Your task to perform on an android device: turn on notifications settings in the gmail app Image 0: 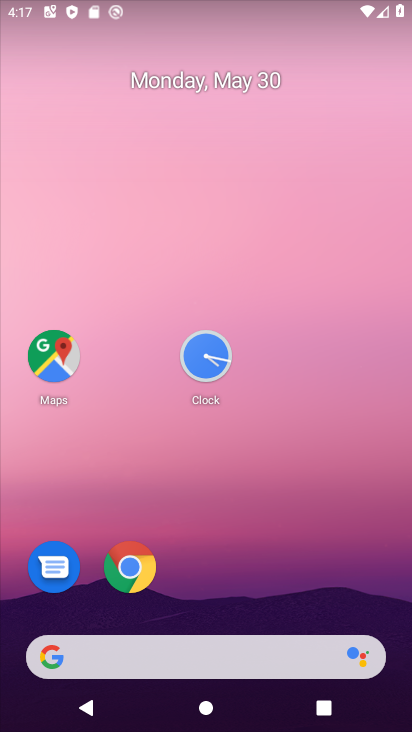
Step 0: drag from (274, 701) to (191, 119)
Your task to perform on an android device: turn on notifications settings in the gmail app Image 1: 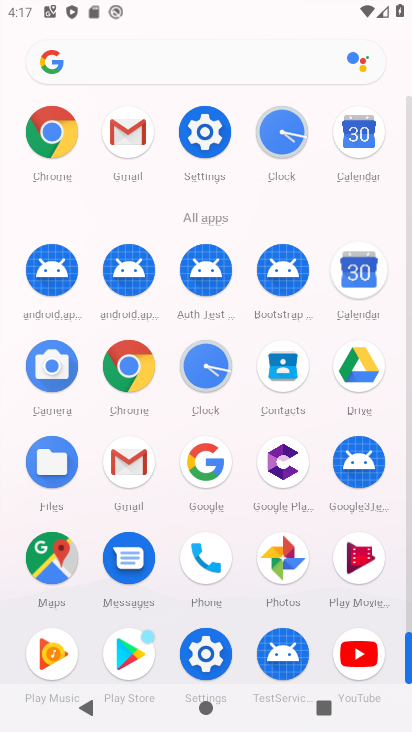
Step 1: click (116, 451)
Your task to perform on an android device: turn on notifications settings in the gmail app Image 2: 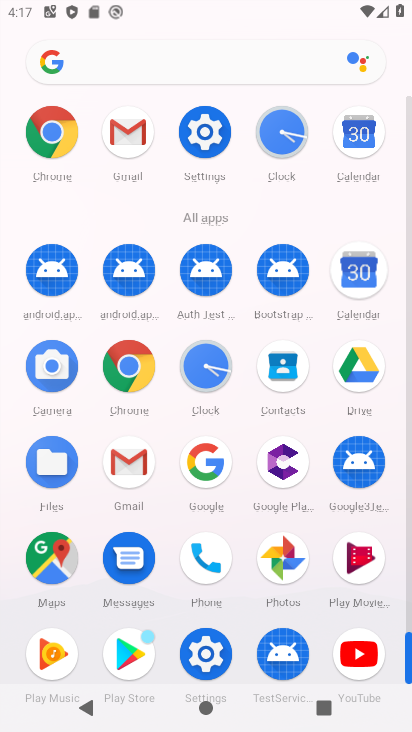
Step 2: click (119, 452)
Your task to perform on an android device: turn on notifications settings in the gmail app Image 3: 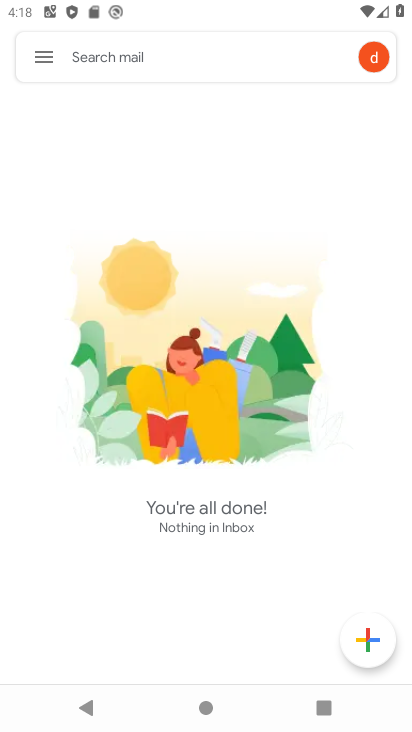
Step 3: click (50, 50)
Your task to perform on an android device: turn on notifications settings in the gmail app Image 4: 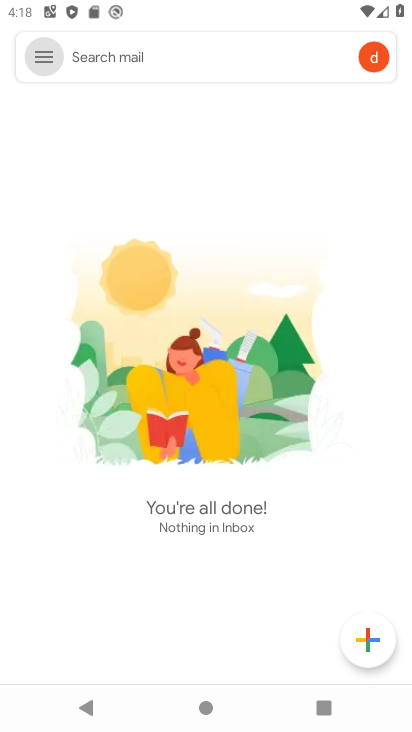
Step 4: click (48, 52)
Your task to perform on an android device: turn on notifications settings in the gmail app Image 5: 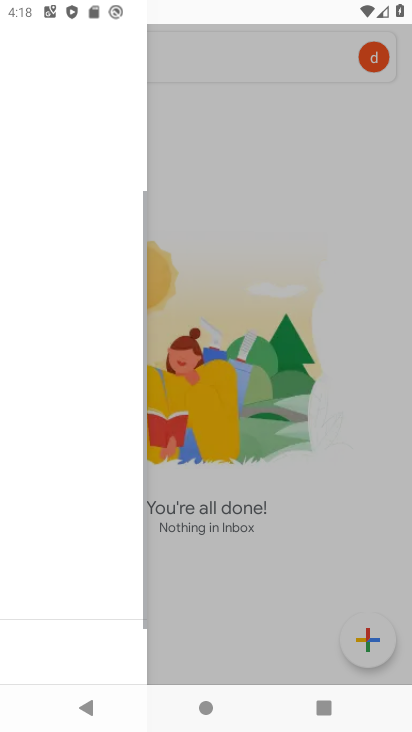
Step 5: click (48, 52)
Your task to perform on an android device: turn on notifications settings in the gmail app Image 6: 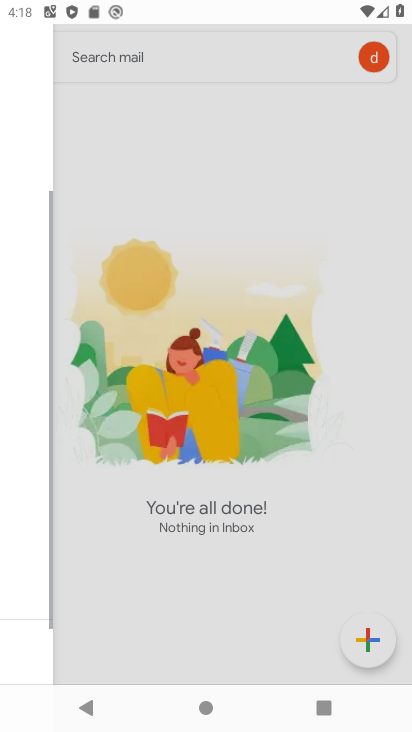
Step 6: click (47, 56)
Your task to perform on an android device: turn on notifications settings in the gmail app Image 7: 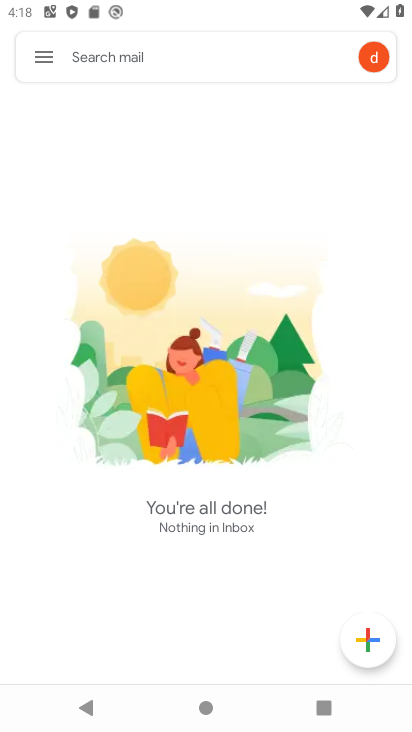
Step 7: click (44, 62)
Your task to perform on an android device: turn on notifications settings in the gmail app Image 8: 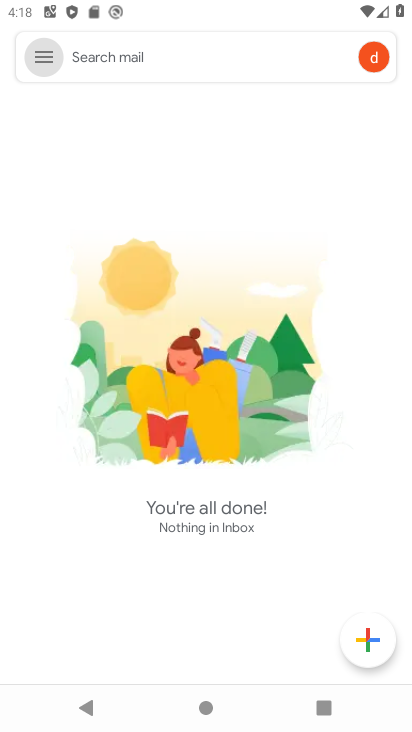
Step 8: click (45, 62)
Your task to perform on an android device: turn on notifications settings in the gmail app Image 9: 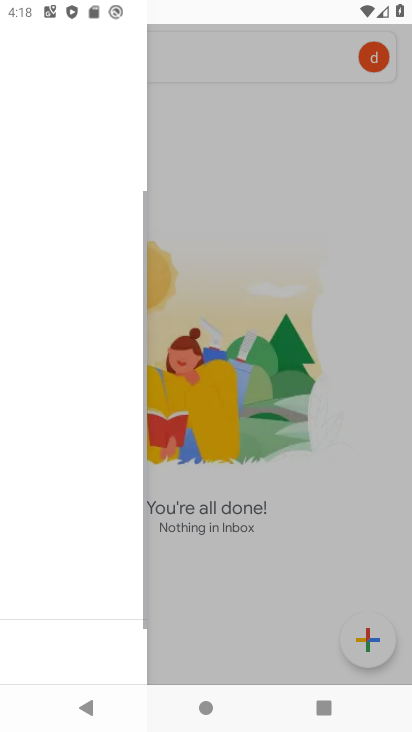
Step 9: click (45, 62)
Your task to perform on an android device: turn on notifications settings in the gmail app Image 10: 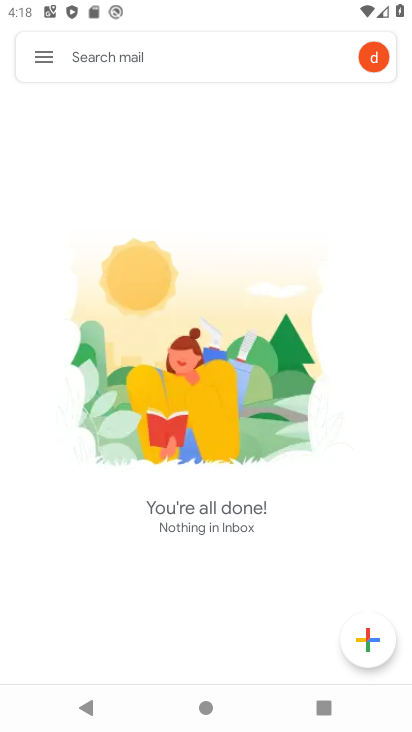
Step 10: click (43, 63)
Your task to perform on an android device: turn on notifications settings in the gmail app Image 11: 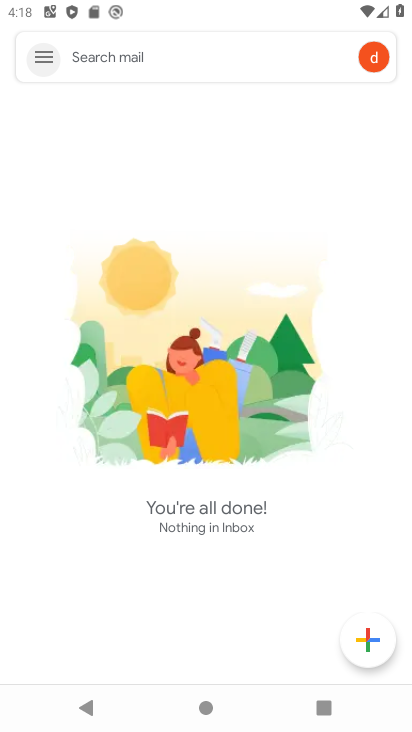
Step 11: click (43, 63)
Your task to perform on an android device: turn on notifications settings in the gmail app Image 12: 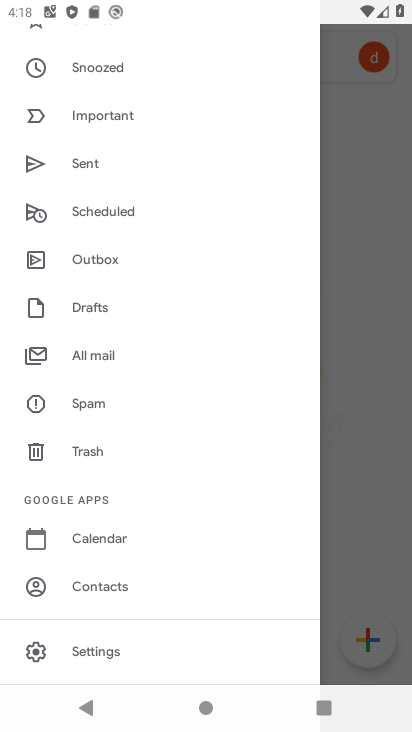
Step 12: click (97, 644)
Your task to perform on an android device: turn on notifications settings in the gmail app Image 13: 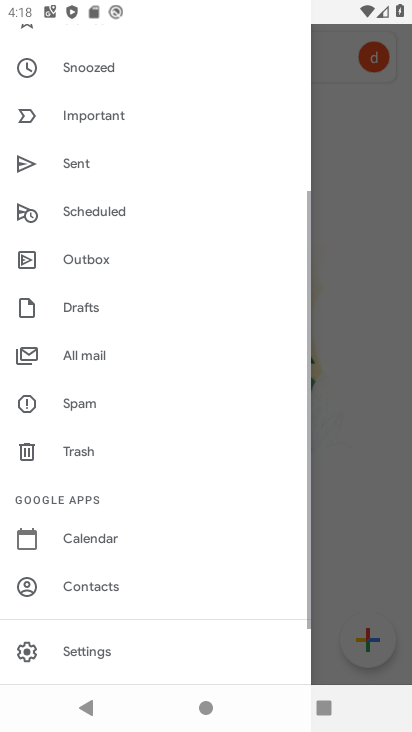
Step 13: click (97, 644)
Your task to perform on an android device: turn on notifications settings in the gmail app Image 14: 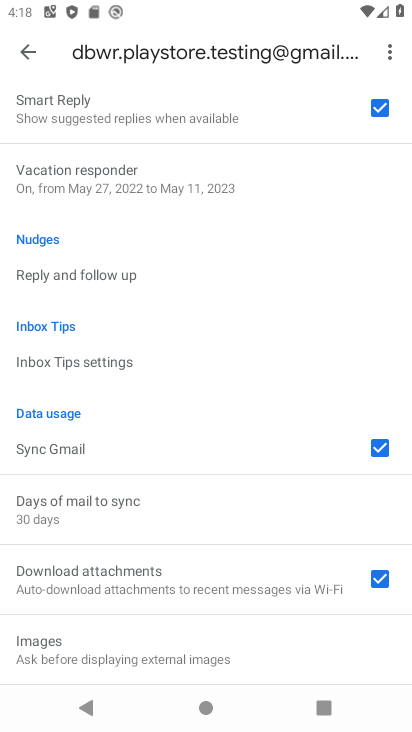
Step 14: drag from (81, 184) to (137, 421)
Your task to perform on an android device: turn on notifications settings in the gmail app Image 15: 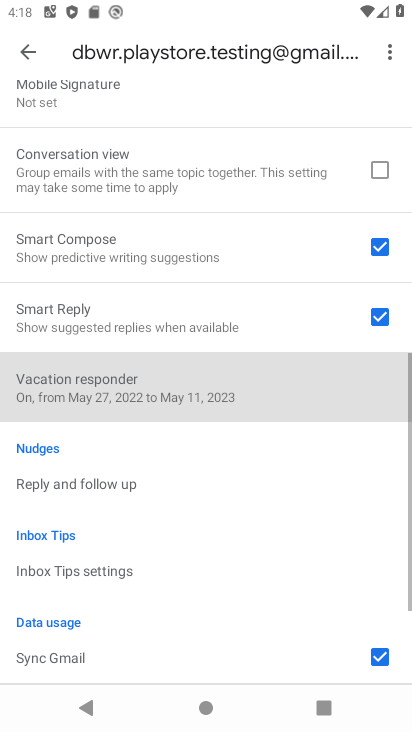
Step 15: drag from (118, 165) to (129, 490)
Your task to perform on an android device: turn on notifications settings in the gmail app Image 16: 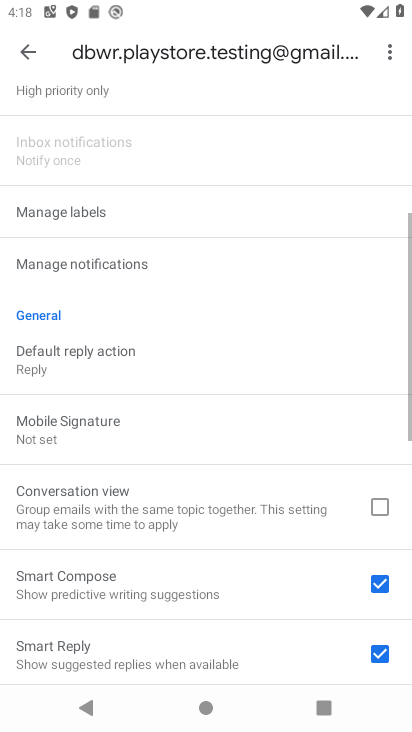
Step 16: drag from (132, 284) to (136, 580)
Your task to perform on an android device: turn on notifications settings in the gmail app Image 17: 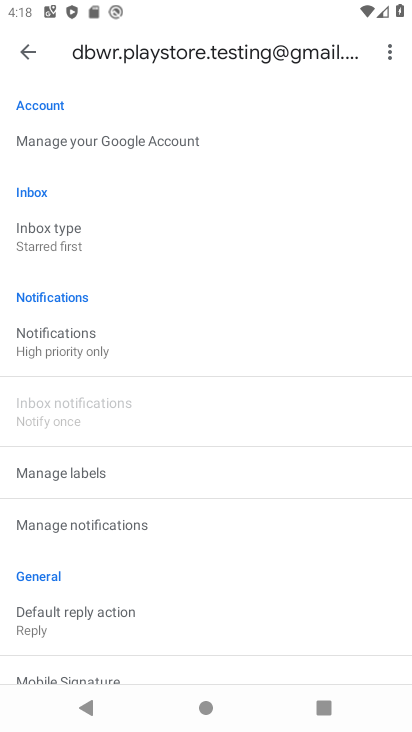
Step 17: click (62, 343)
Your task to perform on an android device: turn on notifications settings in the gmail app Image 18: 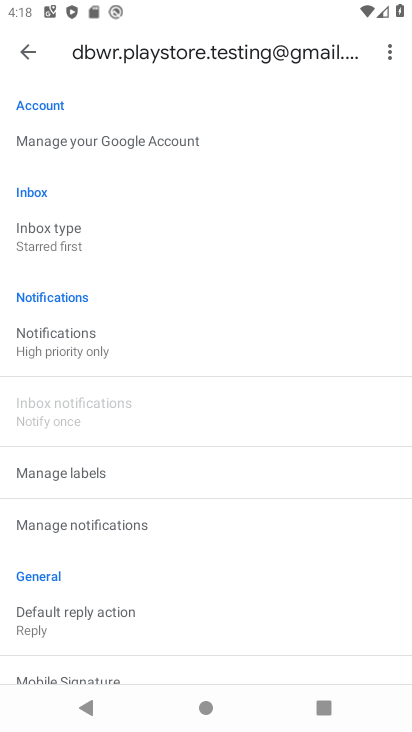
Step 18: click (62, 343)
Your task to perform on an android device: turn on notifications settings in the gmail app Image 19: 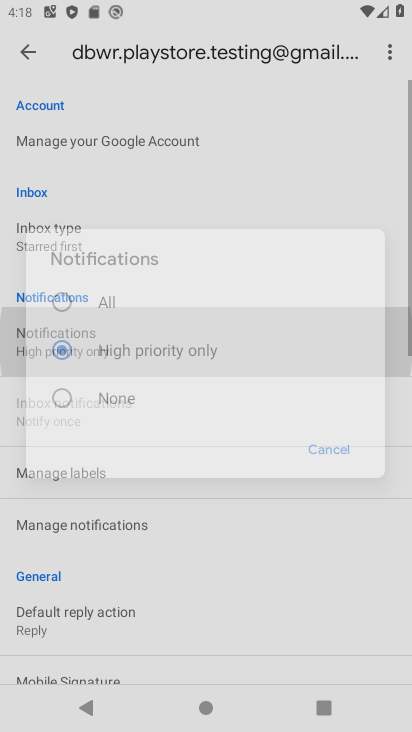
Step 19: click (62, 343)
Your task to perform on an android device: turn on notifications settings in the gmail app Image 20: 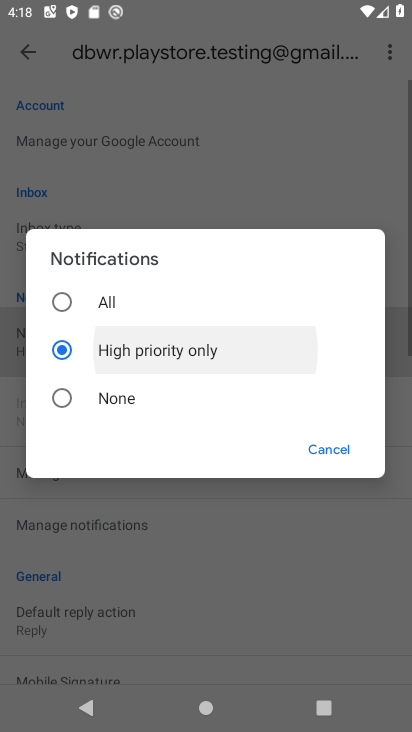
Step 20: click (62, 343)
Your task to perform on an android device: turn on notifications settings in the gmail app Image 21: 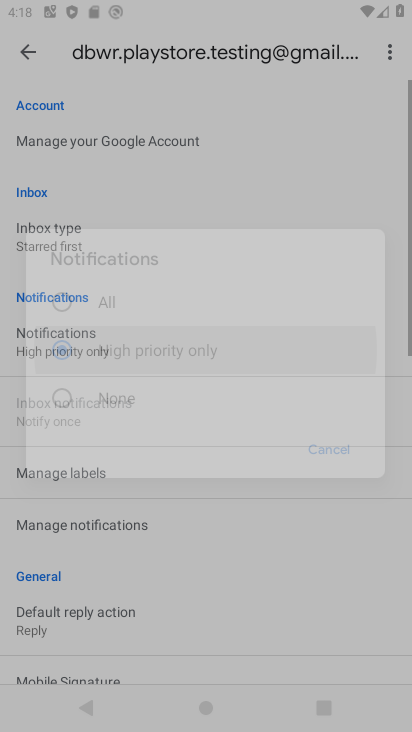
Step 21: click (62, 343)
Your task to perform on an android device: turn on notifications settings in the gmail app Image 22: 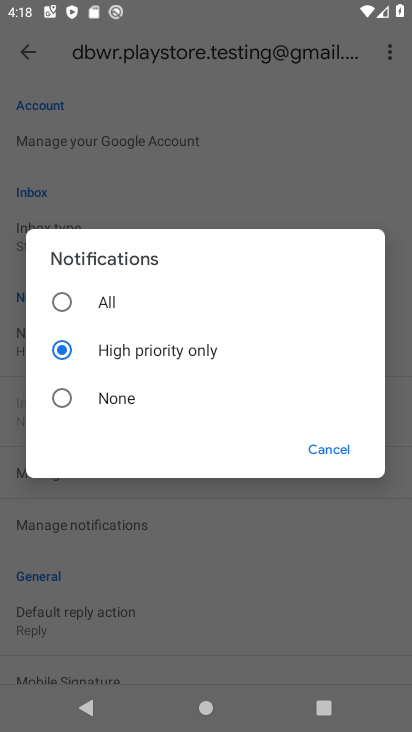
Step 22: click (62, 394)
Your task to perform on an android device: turn on notifications settings in the gmail app Image 23: 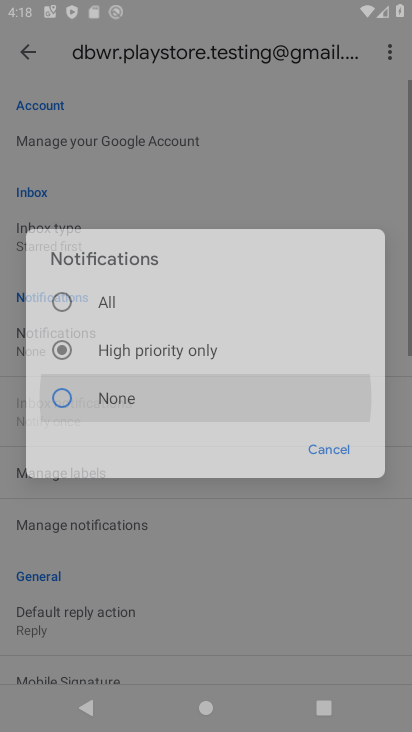
Step 23: click (62, 394)
Your task to perform on an android device: turn on notifications settings in the gmail app Image 24: 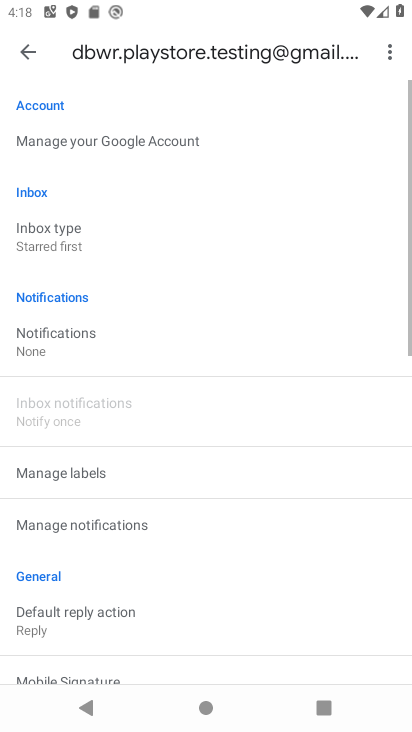
Step 24: click (62, 394)
Your task to perform on an android device: turn on notifications settings in the gmail app Image 25: 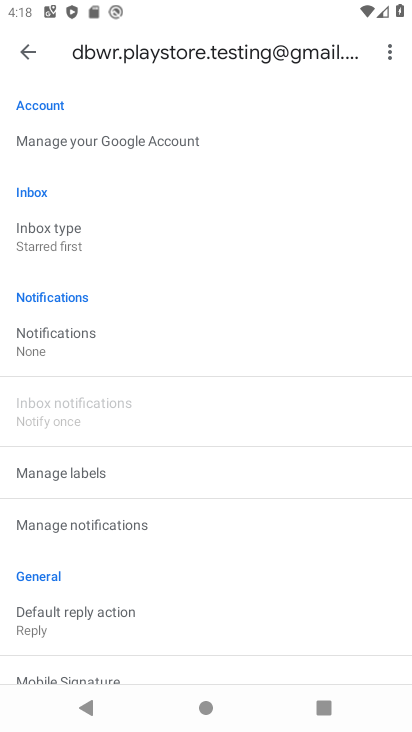
Step 25: task complete